Your task to perform on an android device: turn off improve location accuracy Image 0: 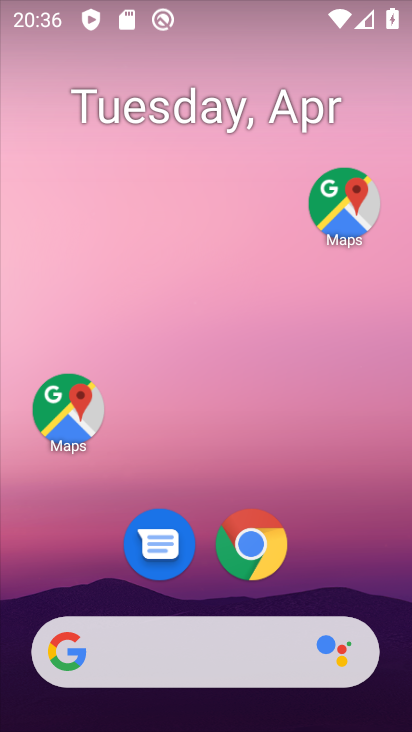
Step 0: drag from (194, 632) to (364, 43)
Your task to perform on an android device: turn off improve location accuracy Image 1: 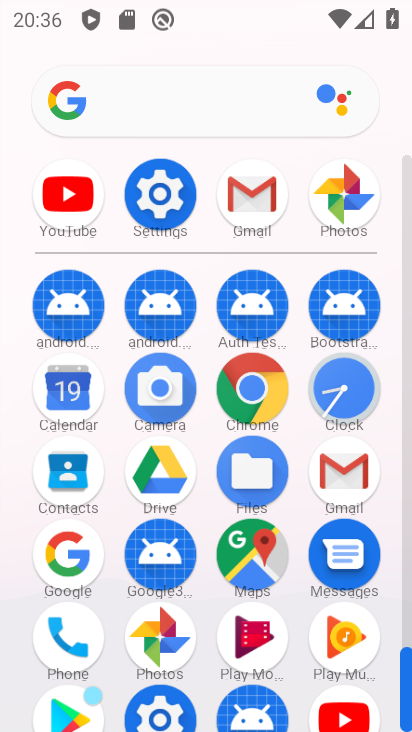
Step 1: click (171, 207)
Your task to perform on an android device: turn off improve location accuracy Image 2: 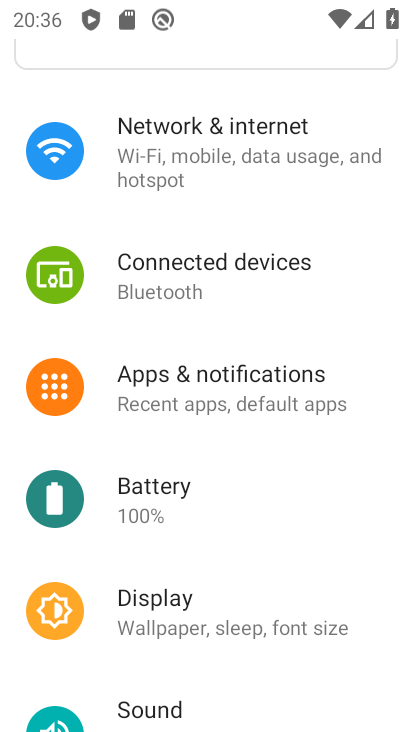
Step 2: drag from (222, 580) to (316, 220)
Your task to perform on an android device: turn off improve location accuracy Image 3: 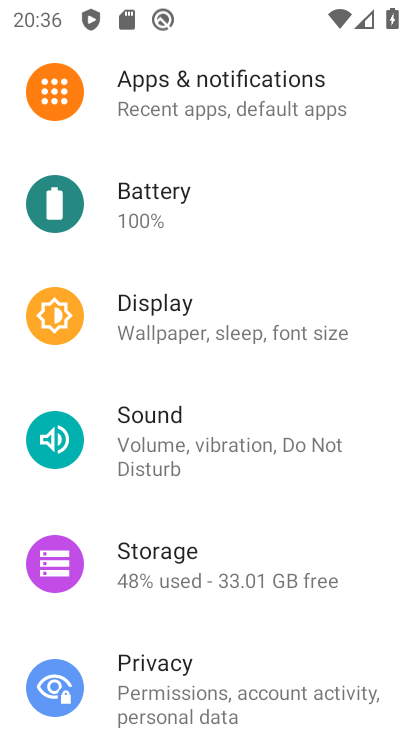
Step 3: drag from (237, 623) to (359, 113)
Your task to perform on an android device: turn off improve location accuracy Image 4: 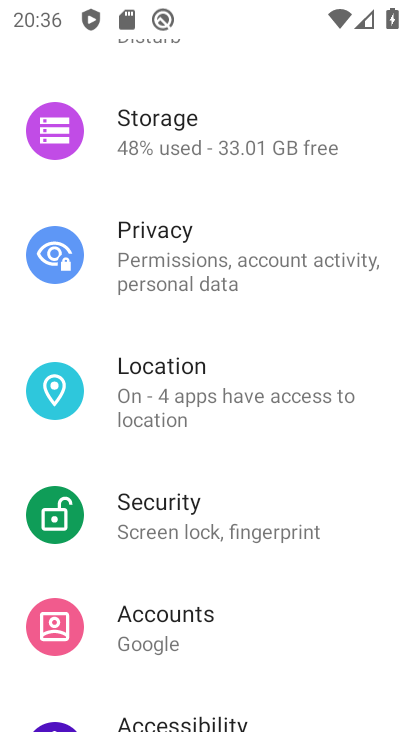
Step 4: click (194, 374)
Your task to perform on an android device: turn off improve location accuracy Image 5: 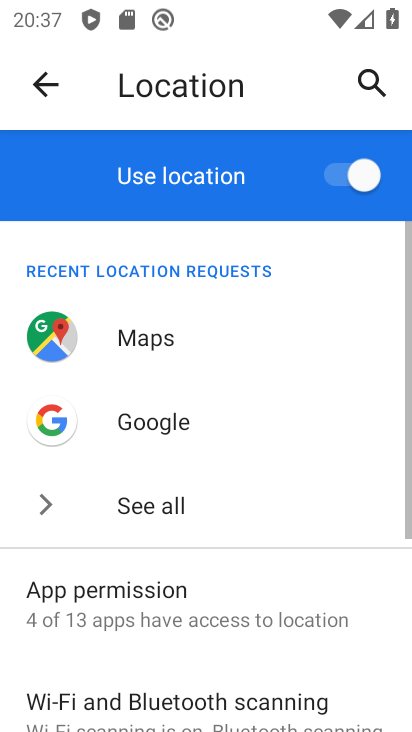
Step 5: drag from (178, 629) to (308, 209)
Your task to perform on an android device: turn off improve location accuracy Image 6: 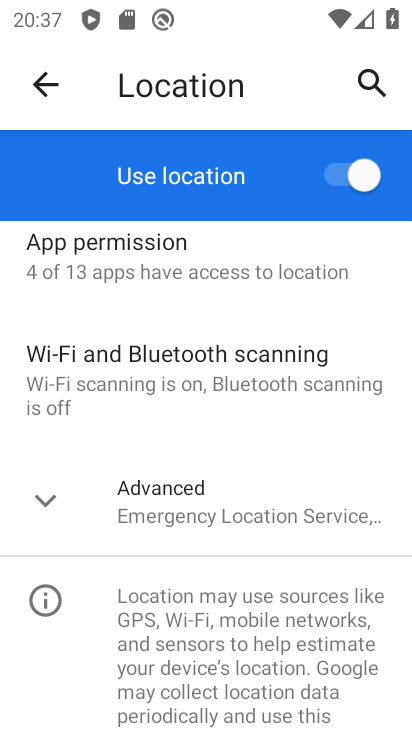
Step 6: click (161, 494)
Your task to perform on an android device: turn off improve location accuracy Image 7: 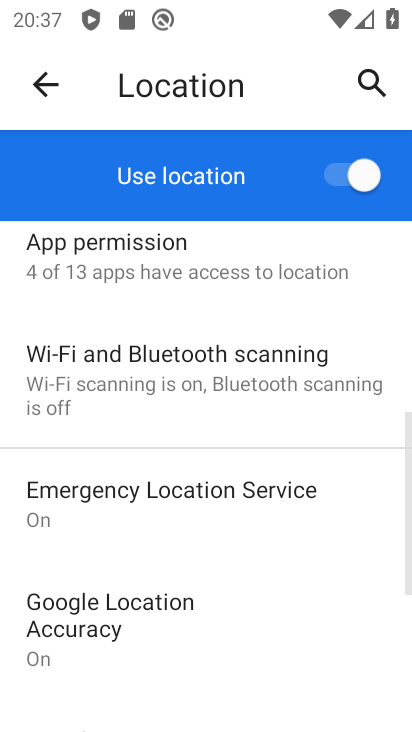
Step 7: drag from (206, 603) to (336, 253)
Your task to perform on an android device: turn off improve location accuracy Image 8: 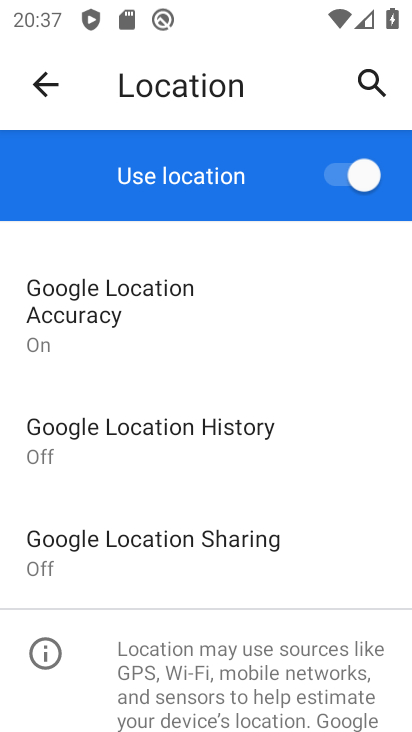
Step 8: click (132, 304)
Your task to perform on an android device: turn off improve location accuracy Image 9: 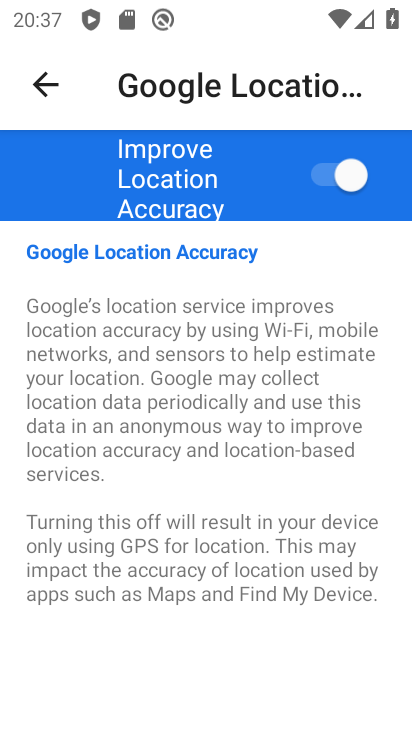
Step 9: click (320, 175)
Your task to perform on an android device: turn off improve location accuracy Image 10: 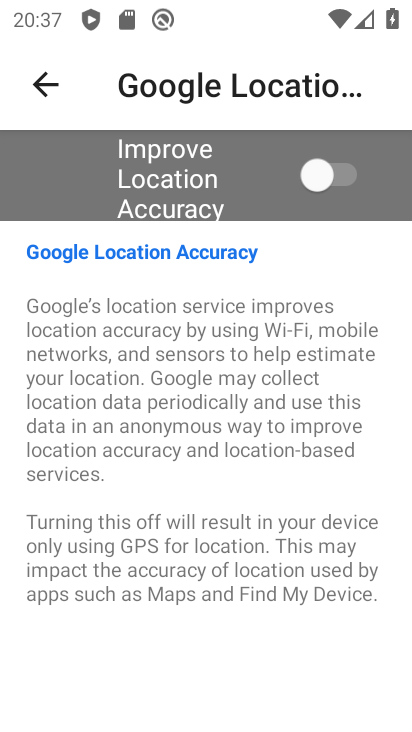
Step 10: task complete